Your task to perform on an android device: delete a single message in the gmail app Image 0: 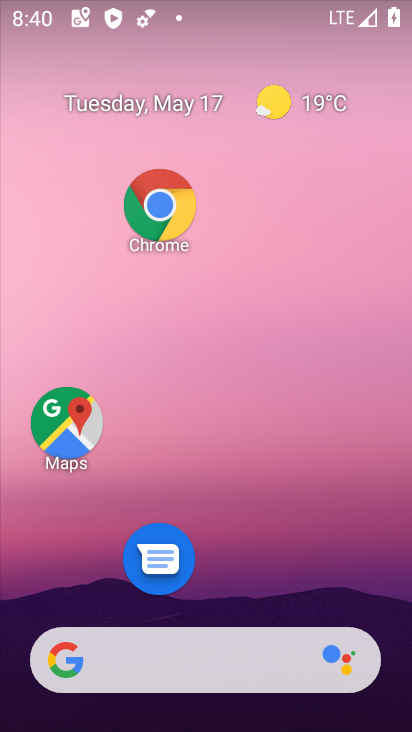
Step 0: drag from (218, 607) to (235, 156)
Your task to perform on an android device: delete a single message in the gmail app Image 1: 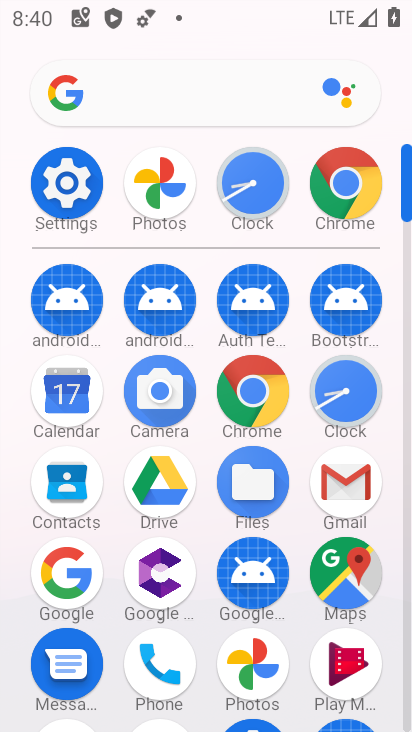
Step 1: click (341, 462)
Your task to perform on an android device: delete a single message in the gmail app Image 2: 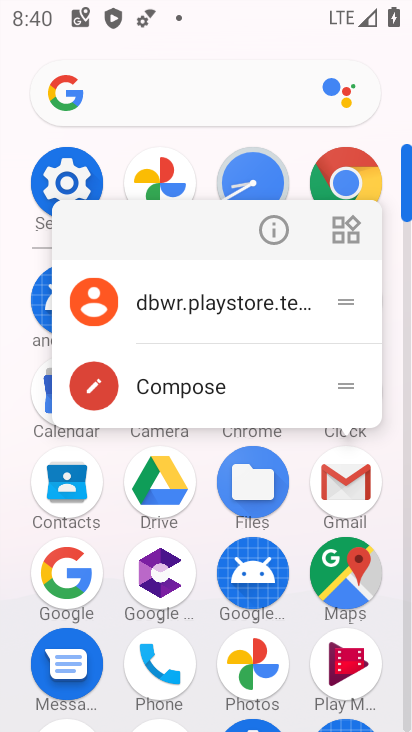
Step 2: click (212, 305)
Your task to perform on an android device: delete a single message in the gmail app Image 3: 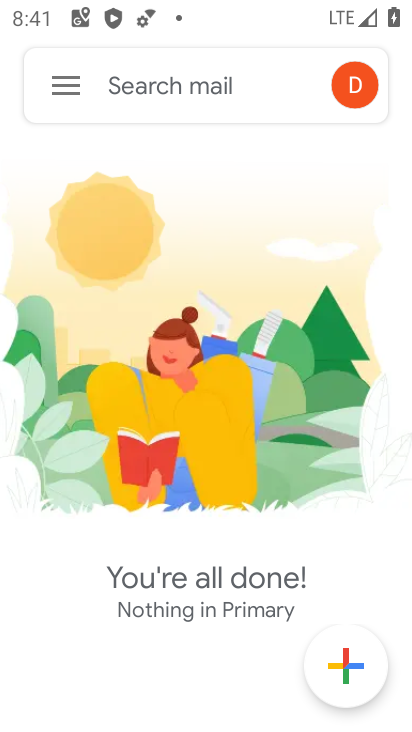
Step 3: task complete